Your task to perform on an android device: Open calendar and show me the third week of next month Image 0: 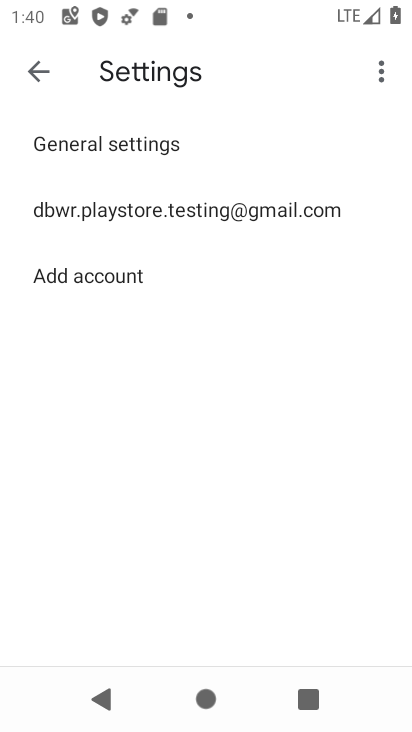
Step 0: press home button
Your task to perform on an android device: Open calendar and show me the third week of next month Image 1: 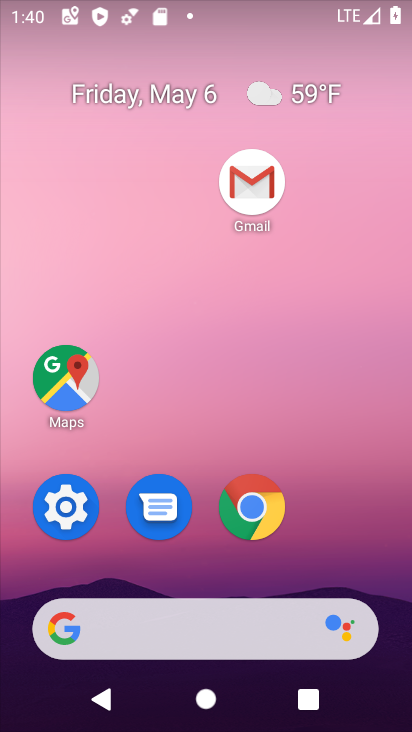
Step 1: drag from (326, 530) to (310, 132)
Your task to perform on an android device: Open calendar and show me the third week of next month Image 2: 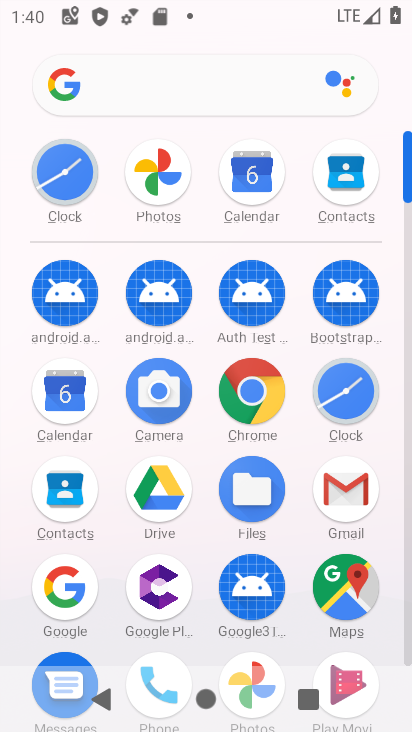
Step 2: click (63, 402)
Your task to perform on an android device: Open calendar and show me the third week of next month Image 3: 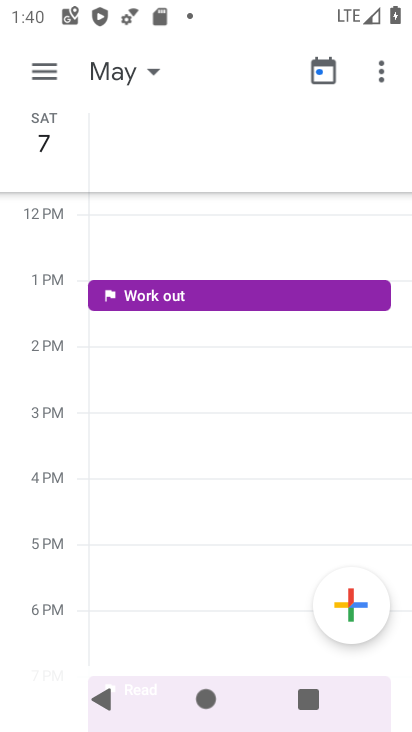
Step 3: click (43, 64)
Your task to perform on an android device: Open calendar and show me the third week of next month Image 4: 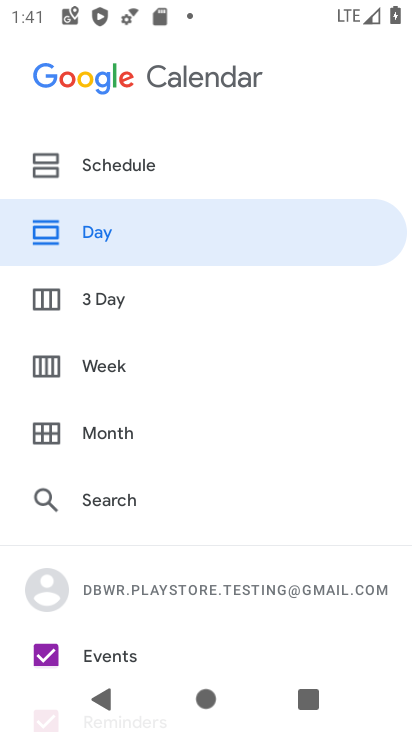
Step 4: click (106, 361)
Your task to perform on an android device: Open calendar and show me the third week of next month Image 5: 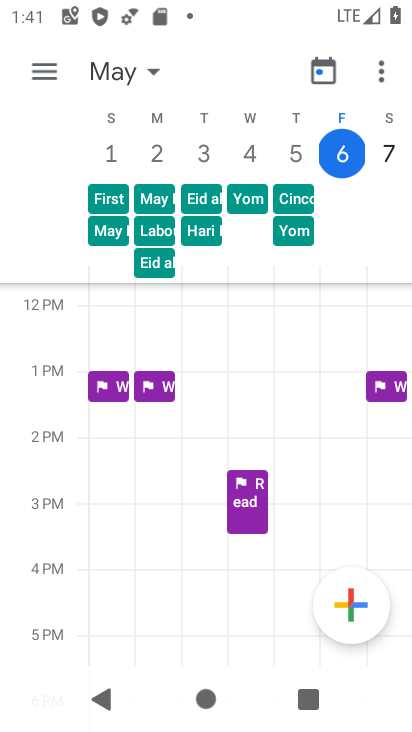
Step 5: click (157, 66)
Your task to perform on an android device: Open calendar and show me the third week of next month Image 6: 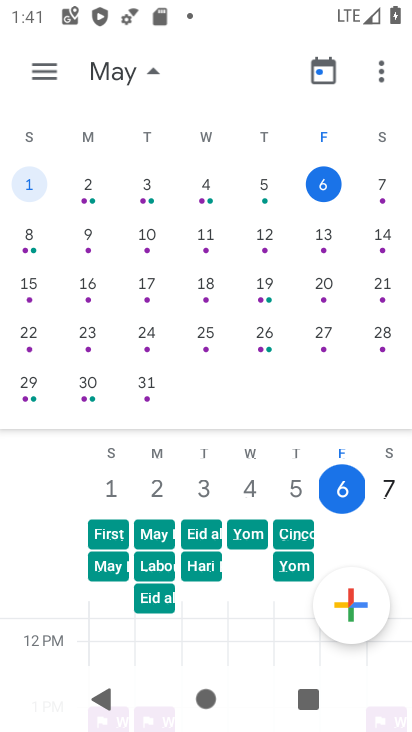
Step 6: drag from (361, 274) to (25, 210)
Your task to perform on an android device: Open calendar and show me the third week of next month Image 7: 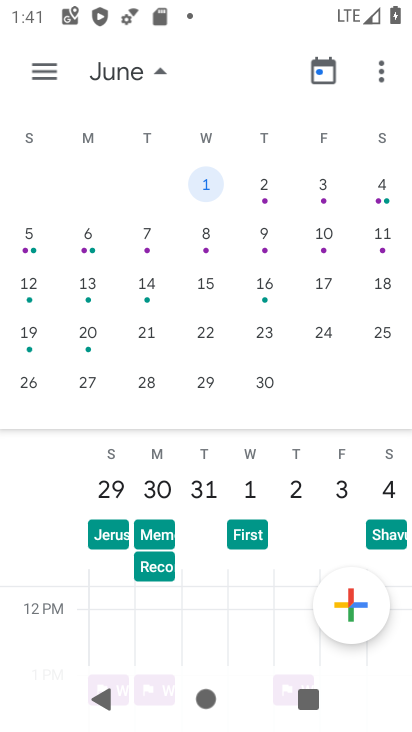
Step 7: click (202, 278)
Your task to perform on an android device: Open calendar and show me the third week of next month Image 8: 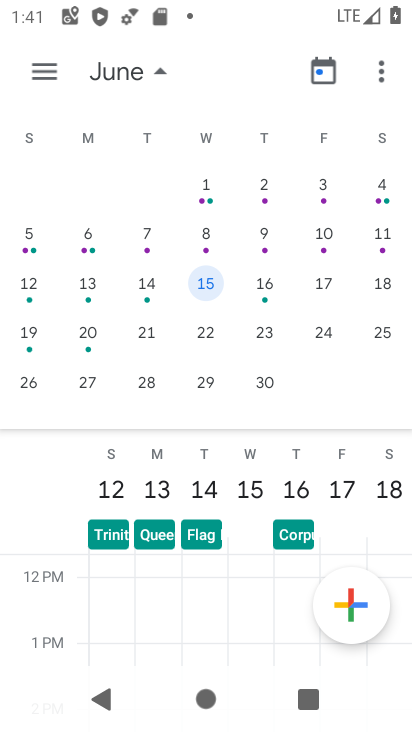
Step 8: task complete